Your task to perform on an android device: all mails in gmail Image 0: 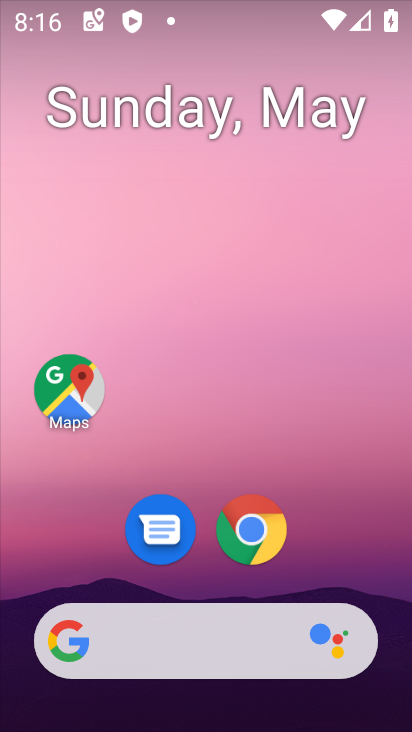
Step 0: drag from (358, 596) to (370, 16)
Your task to perform on an android device: all mails in gmail Image 1: 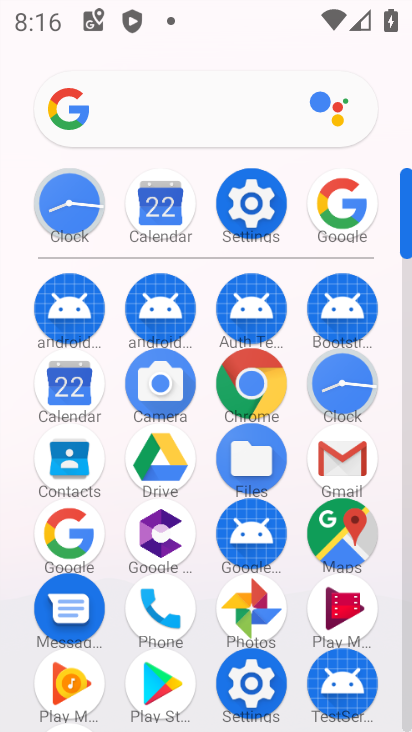
Step 1: click (342, 465)
Your task to perform on an android device: all mails in gmail Image 2: 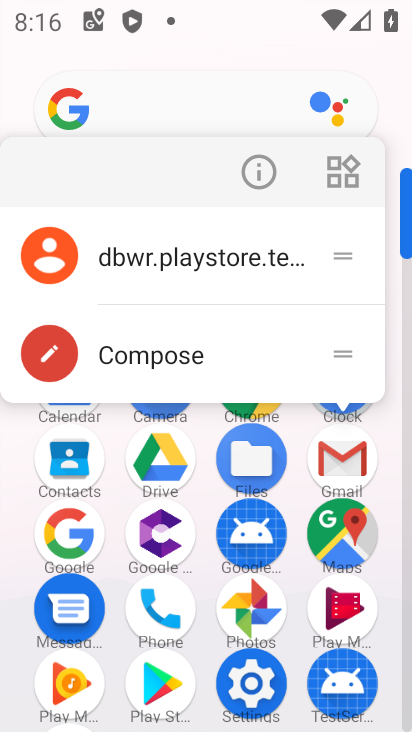
Step 2: click (338, 462)
Your task to perform on an android device: all mails in gmail Image 3: 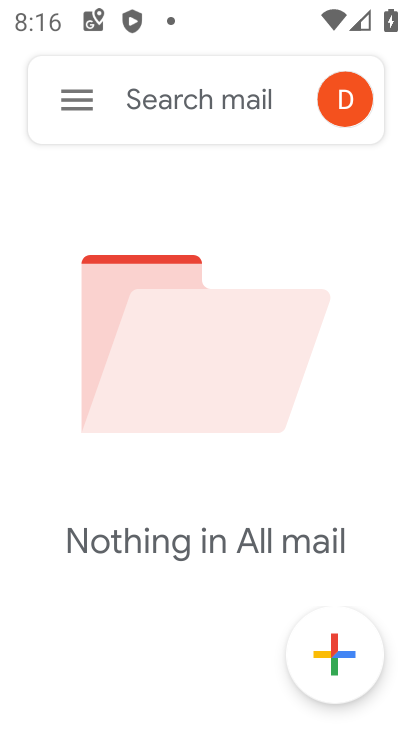
Step 3: task complete